Your task to perform on an android device: uninstall "Adobe Acrobat Reader" Image 0: 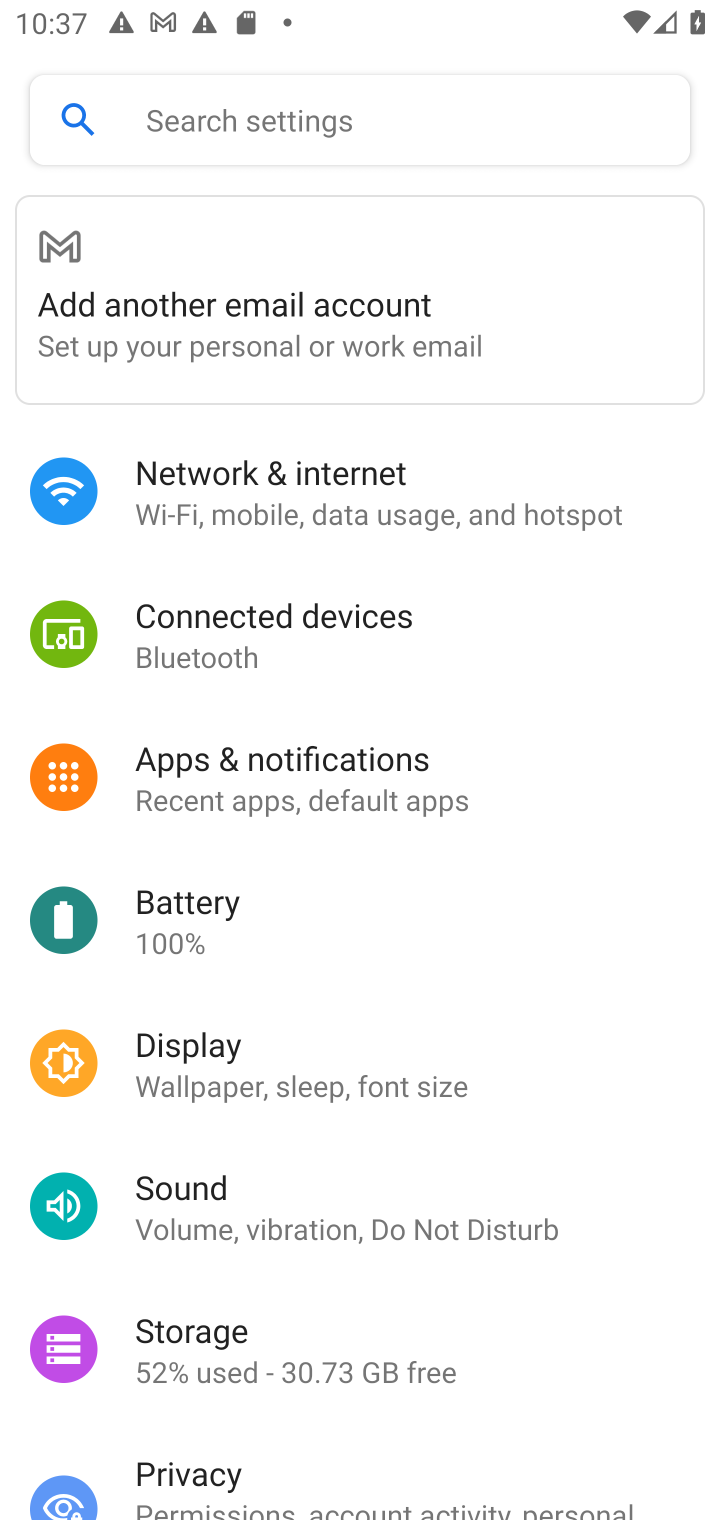
Step 0: press home button
Your task to perform on an android device: uninstall "Adobe Acrobat Reader" Image 1: 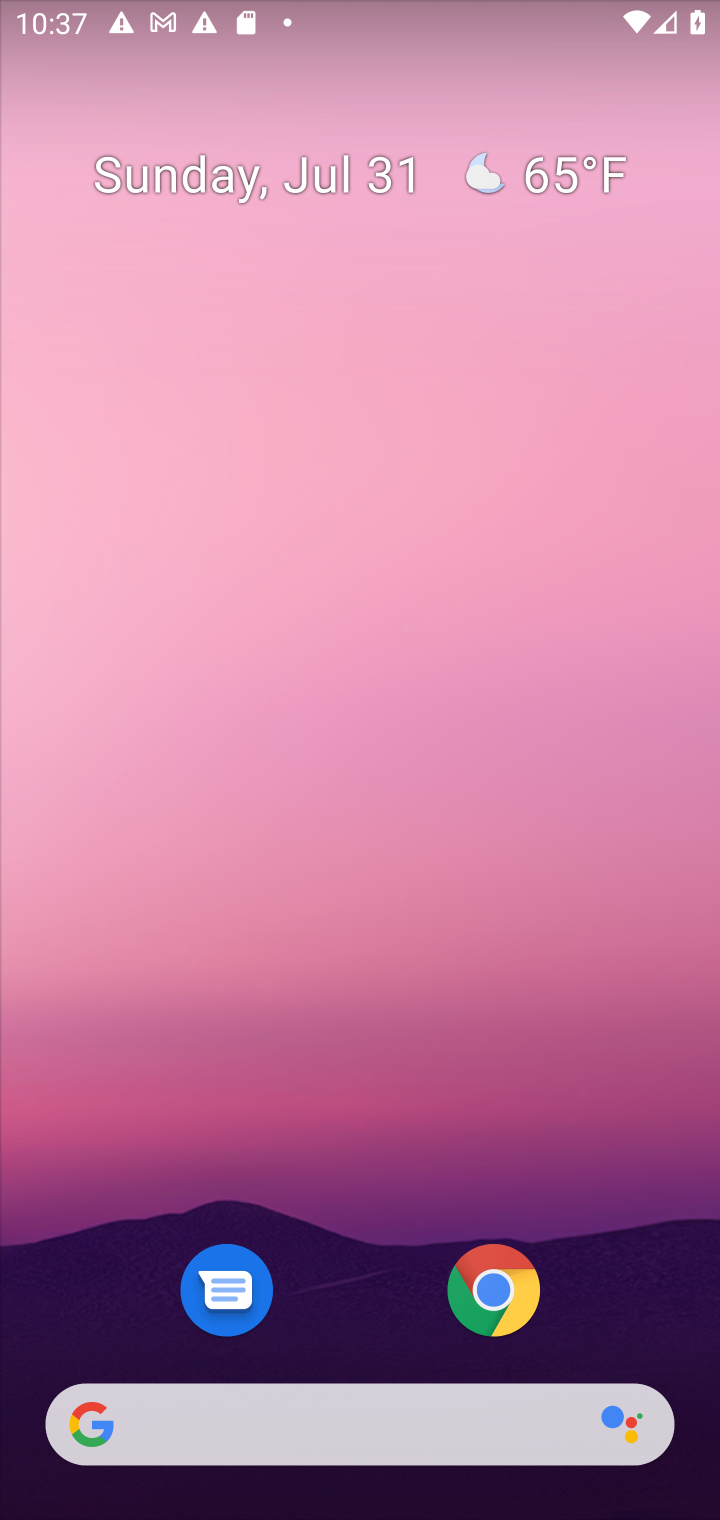
Step 1: drag from (626, 1283) to (621, 142)
Your task to perform on an android device: uninstall "Adobe Acrobat Reader" Image 2: 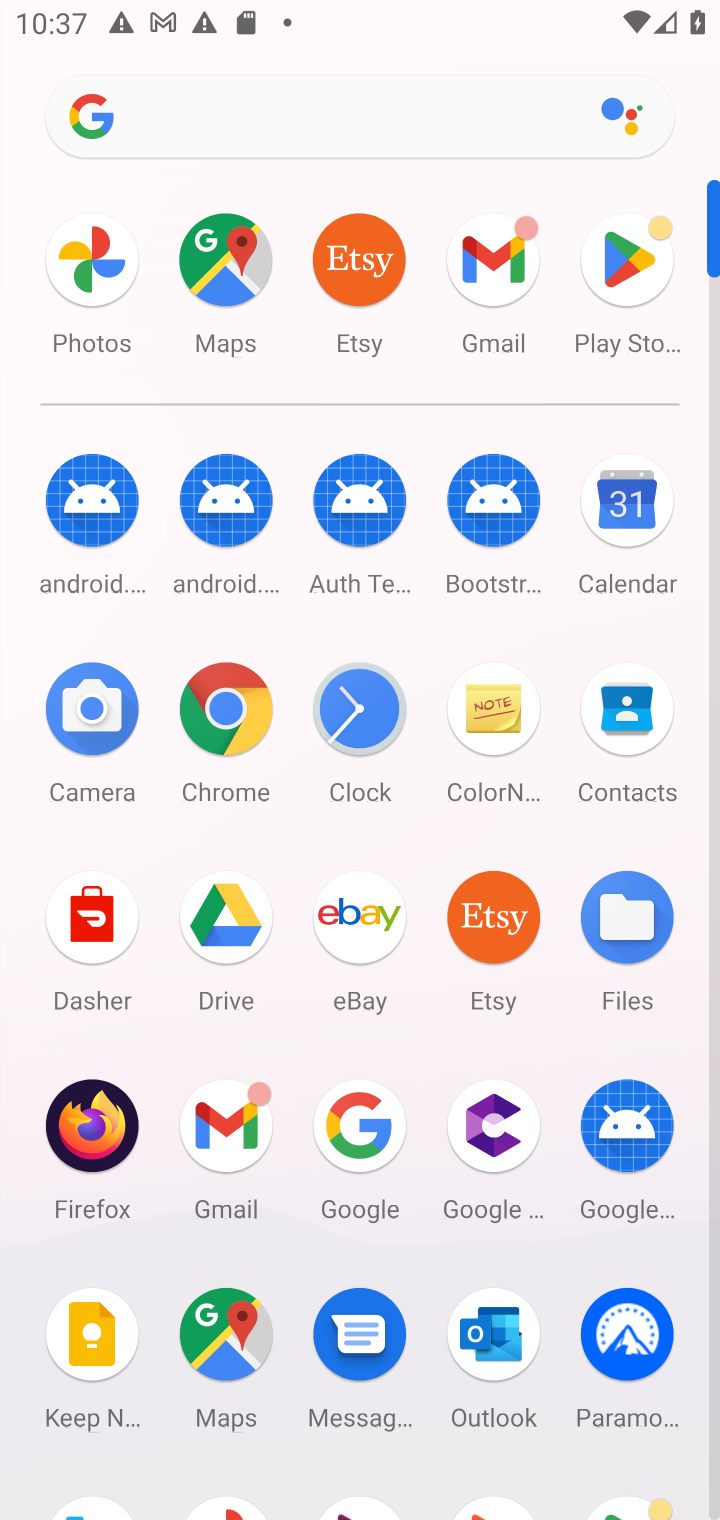
Step 2: click (631, 258)
Your task to perform on an android device: uninstall "Adobe Acrobat Reader" Image 3: 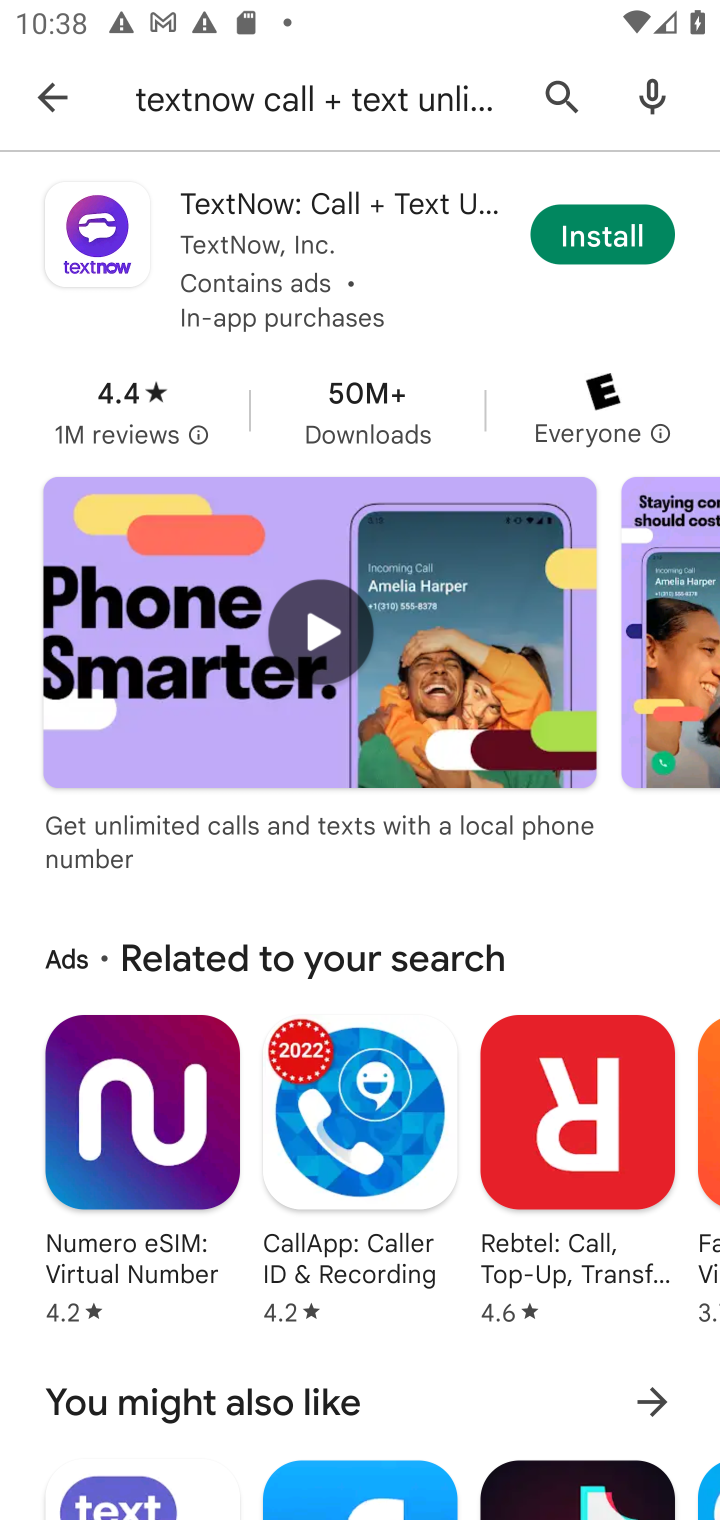
Step 3: click (557, 86)
Your task to perform on an android device: uninstall "Adobe Acrobat Reader" Image 4: 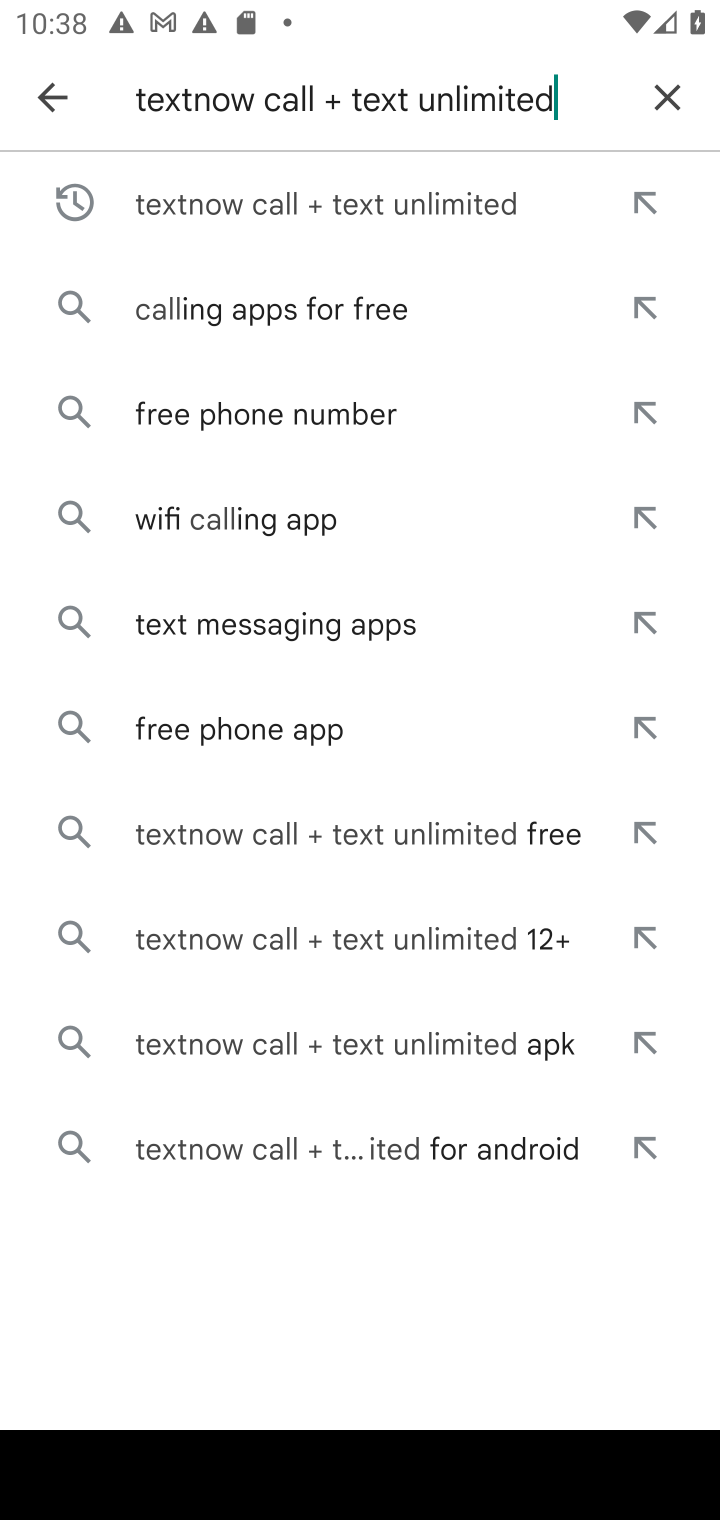
Step 4: click (662, 95)
Your task to perform on an android device: uninstall "Adobe Acrobat Reader" Image 5: 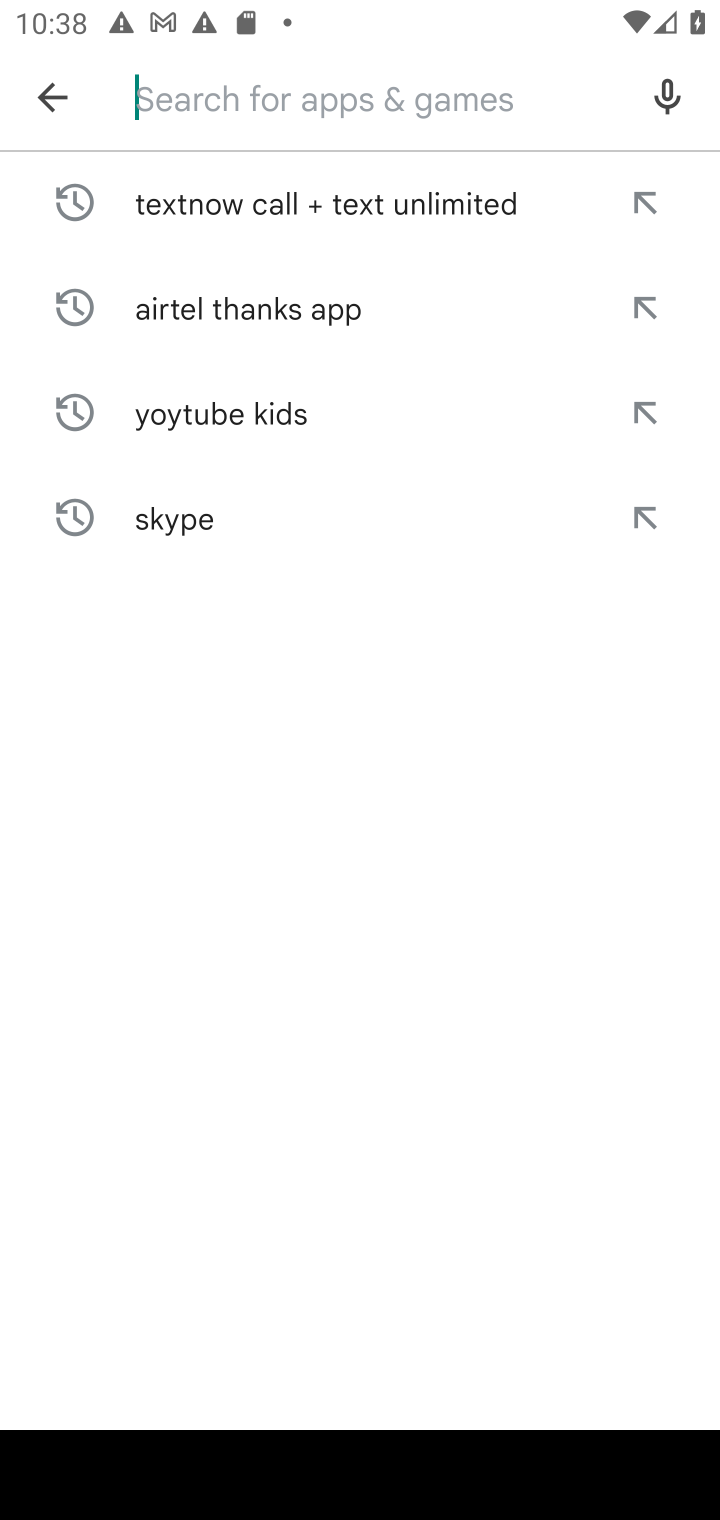
Step 5: type "Adobe Acrobat Reader"
Your task to perform on an android device: uninstall "Adobe Acrobat Reader" Image 6: 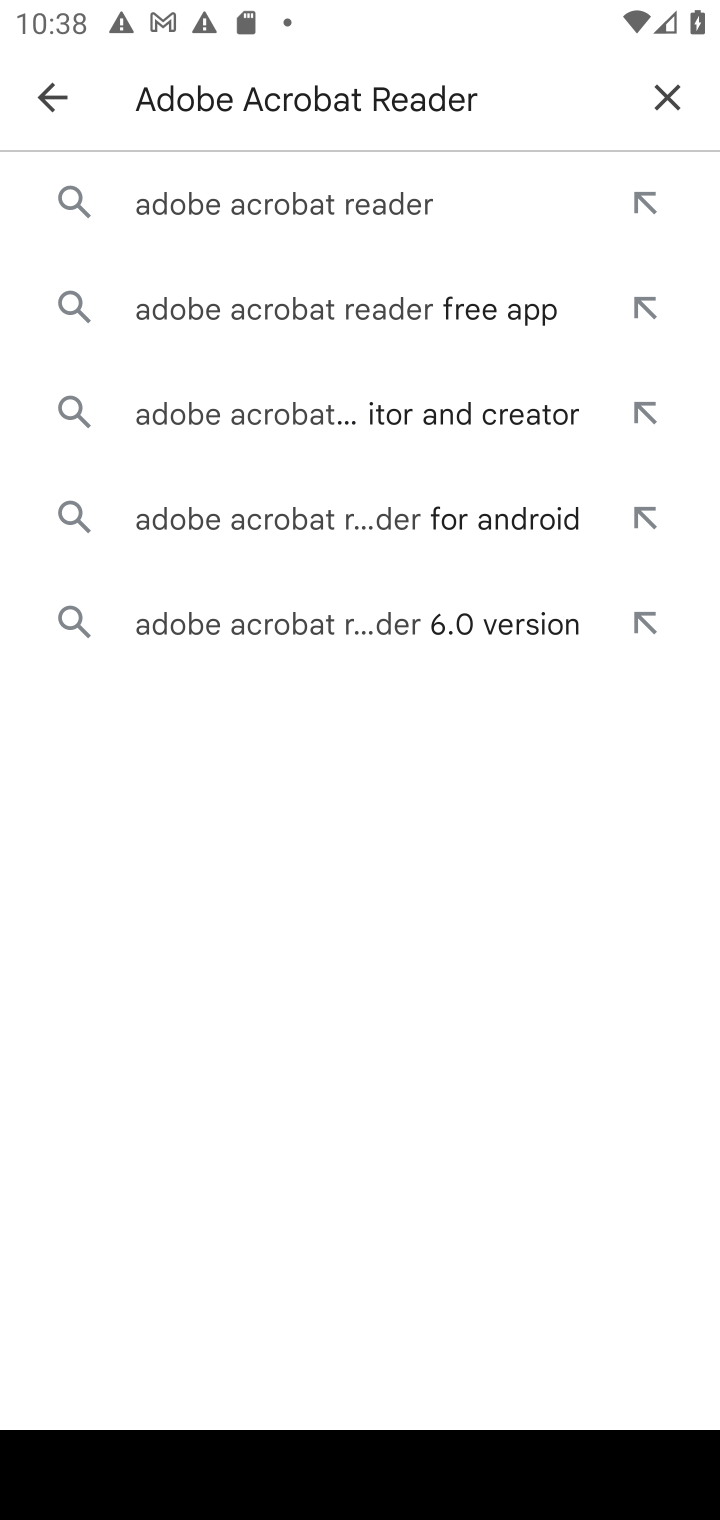
Step 6: click (391, 204)
Your task to perform on an android device: uninstall "Adobe Acrobat Reader" Image 7: 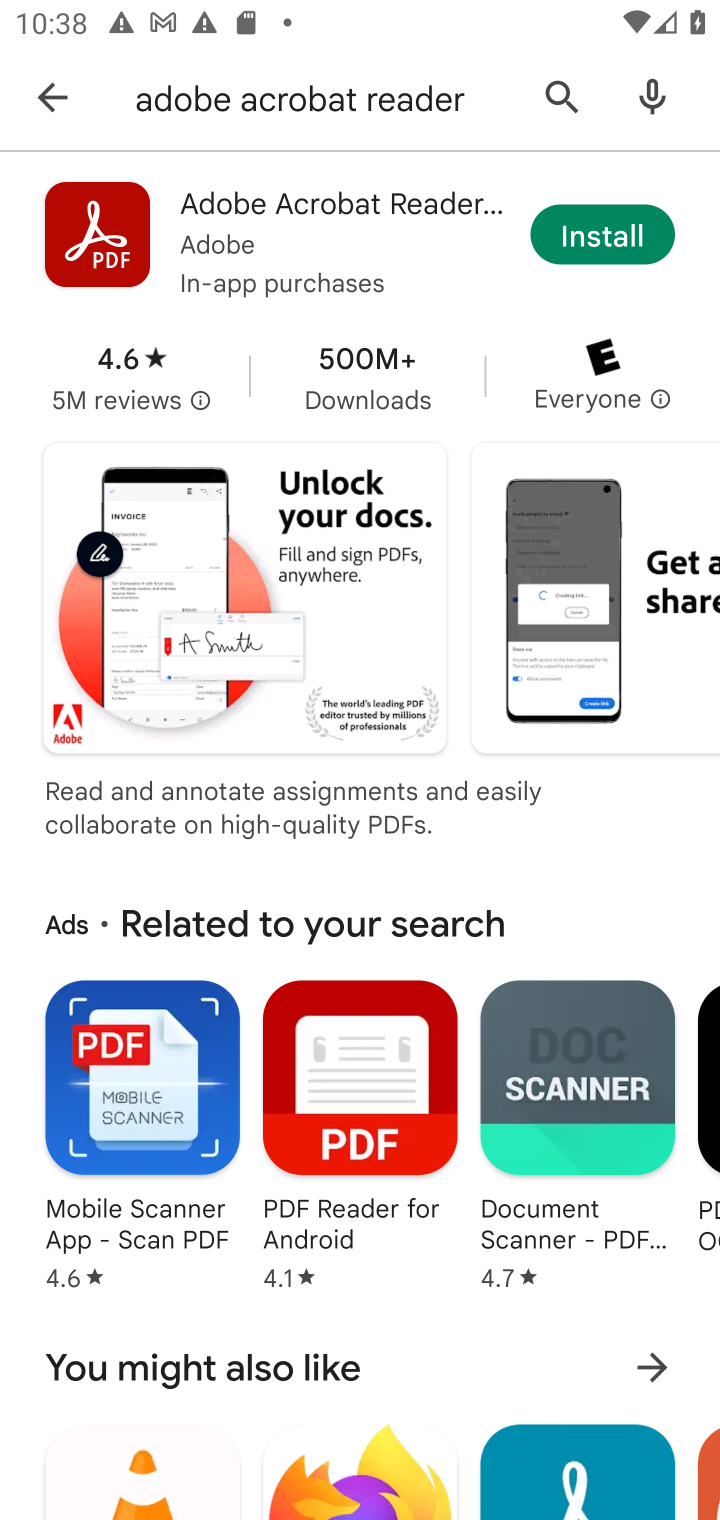
Step 7: task complete